Your task to perform on an android device: check google app version Image 0: 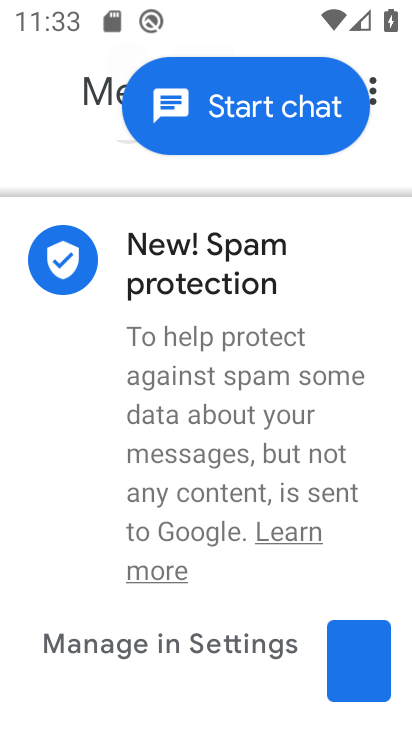
Step 0: press home button
Your task to perform on an android device: check google app version Image 1: 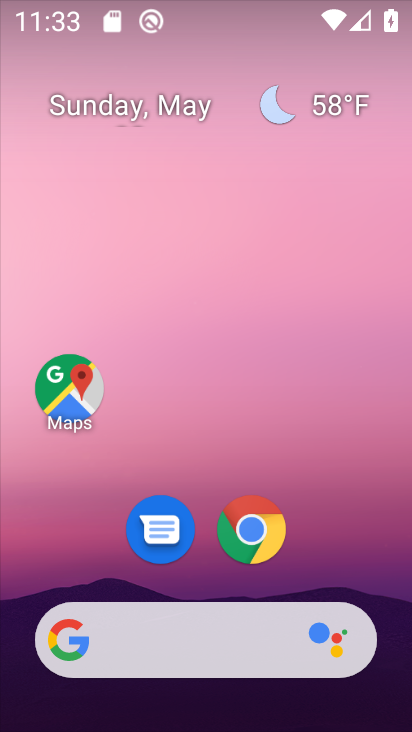
Step 1: drag from (243, 628) to (220, 50)
Your task to perform on an android device: check google app version Image 2: 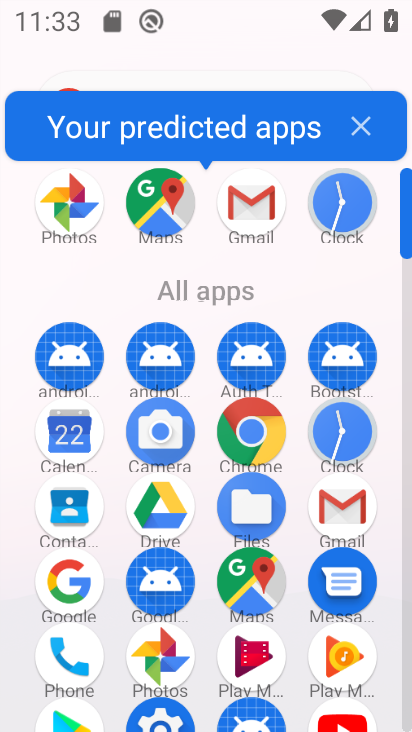
Step 2: click (75, 579)
Your task to perform on an android device: check google app version Image 3: 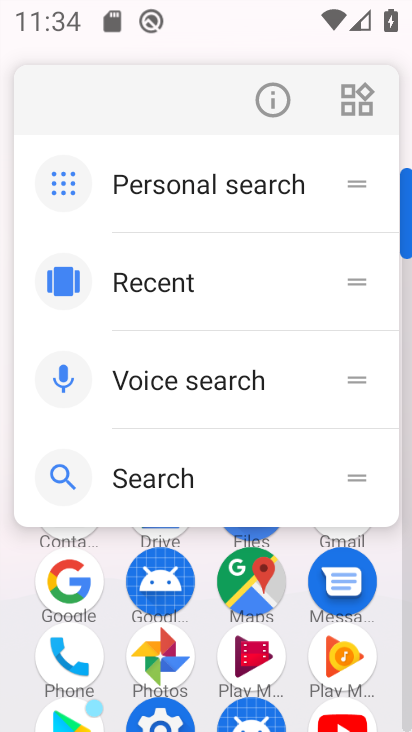
Step 3: click (273, 110)
Your task to perform on an android device: check google app version Image 4: 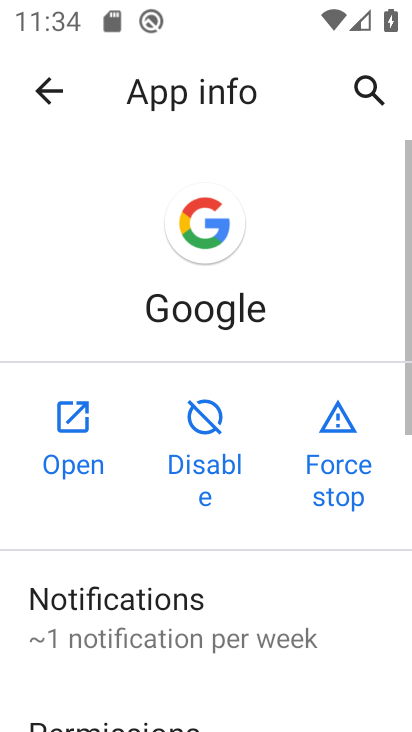
Step 4: drag from (222, 627) to (206, 8)
Your task to perform on an android device: check google app version Image 5: 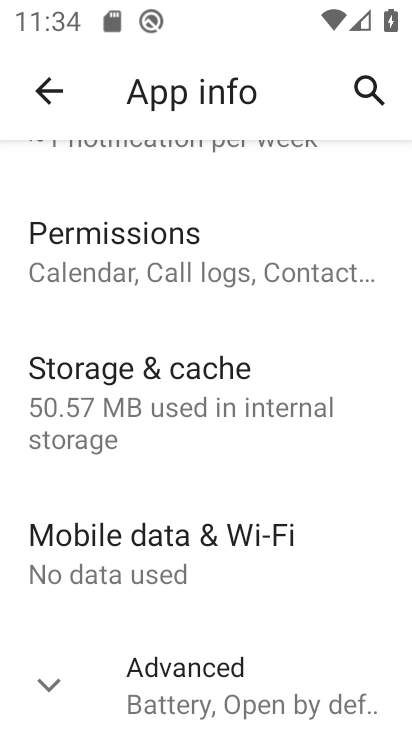
Step 5: drag from (200, 664) to (194, 177)
Your task to perform on an android device: check google app version Image 6: 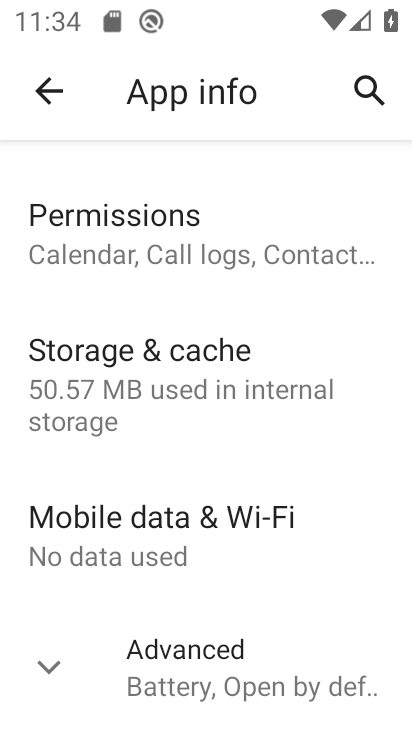
Step 6: click (203, 675)
Your task to perform on an android device: check google app version Image 7: 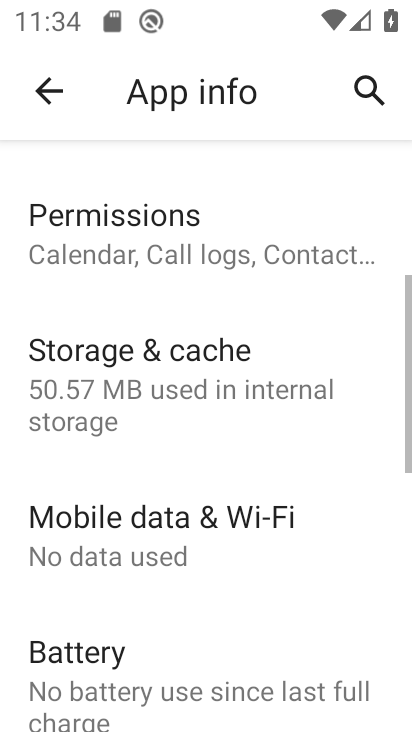
Step 7: task complete